Your task to perform on an android device: Open Android settings Image 0: 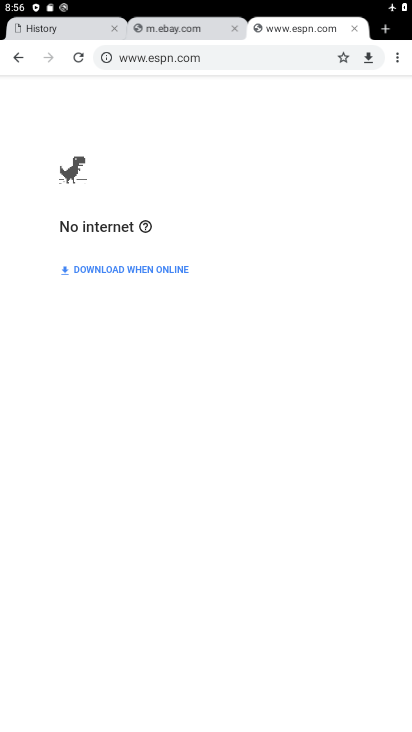
Step 0: press home button
Your task to perform on an android device: Open Android settings Image 1: 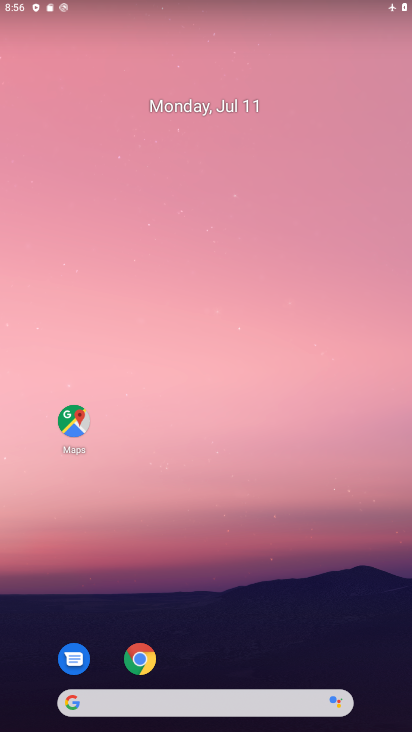
Step 1: drag from (205, 653) to (213, 168)
Your task to perform on an android device: Open Android settings Image 2: 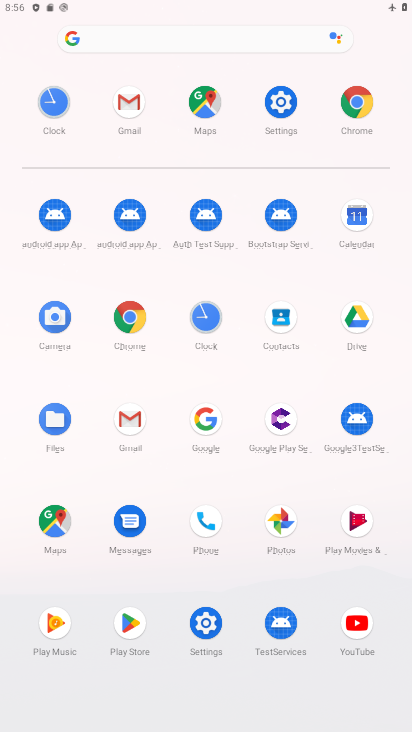
Step 2: click (259, 94)
Your task to perform on an android device: Open Android settings Image 3: 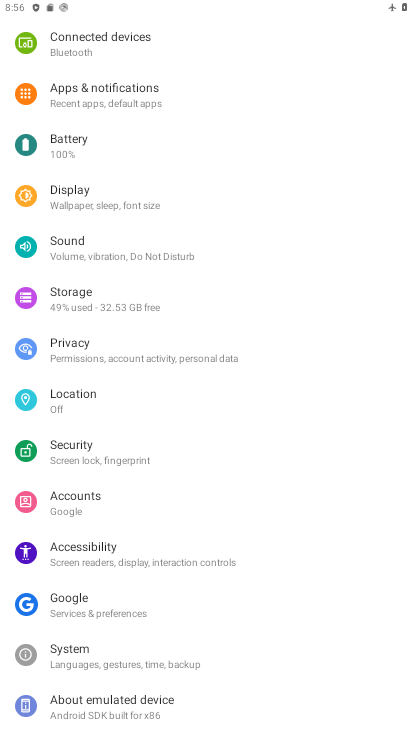
Step 3: task complete